Your task to perform on an android device: snooze an email in the gmail app Image 0: 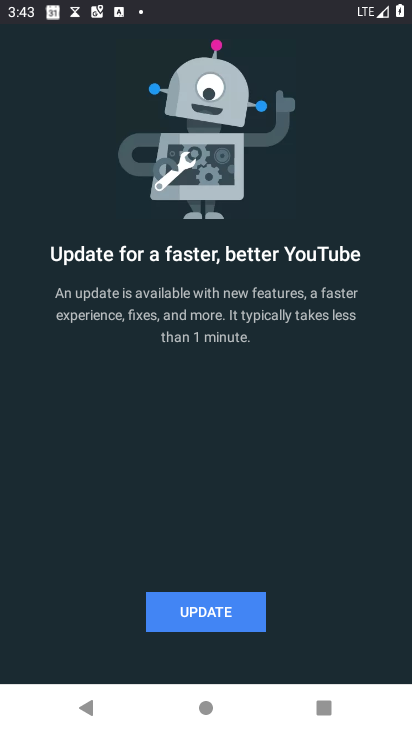
Step 0: press home button
Your task to perform on an android device: snooze an email in the gmail app Image 1: 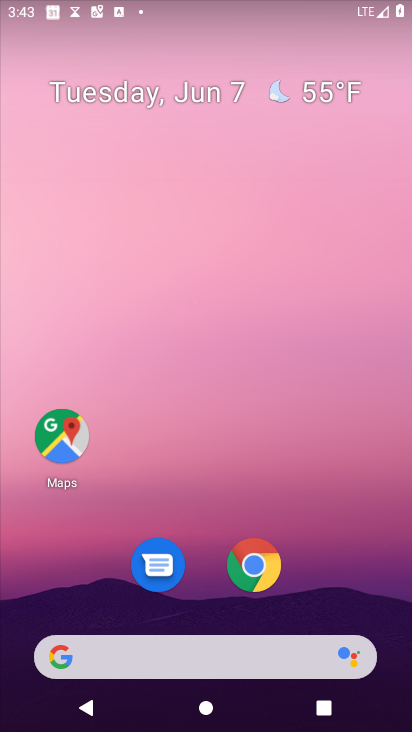
Step 1: drag from (283, 638) to (341, 7)
Your task to perform on an android device: snooze an email in the gmail app Image 2: 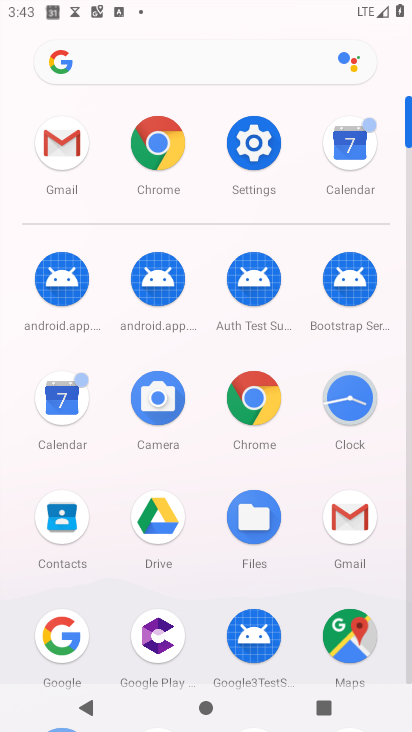
Step 2: click (358, 522)
Your task to perform on an android device: snooze an email in the gmail app Image 3: 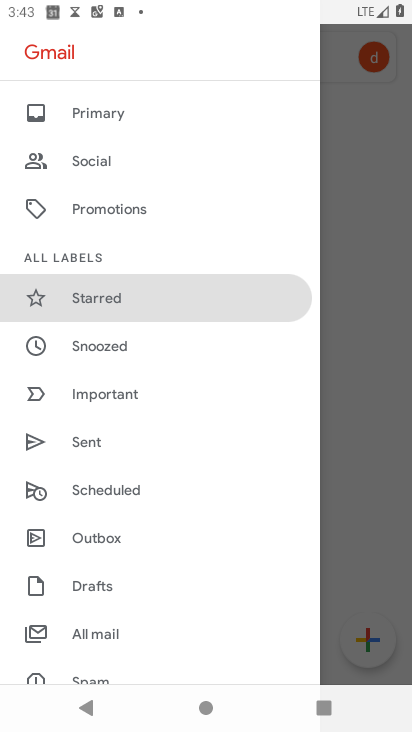
Step 3: click (114, 343)
Your task to perform on an android device: snooze an email in the gmail app Image 4: 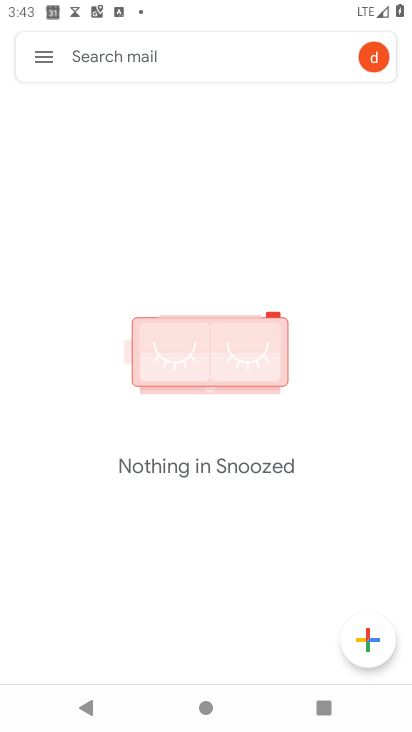
Step 4: task complete